Your task to perform on an android device: Empty the shopping cart on ebay.com. Add "macbook pro 13 inch" to the cart on ebay.com Image 0: 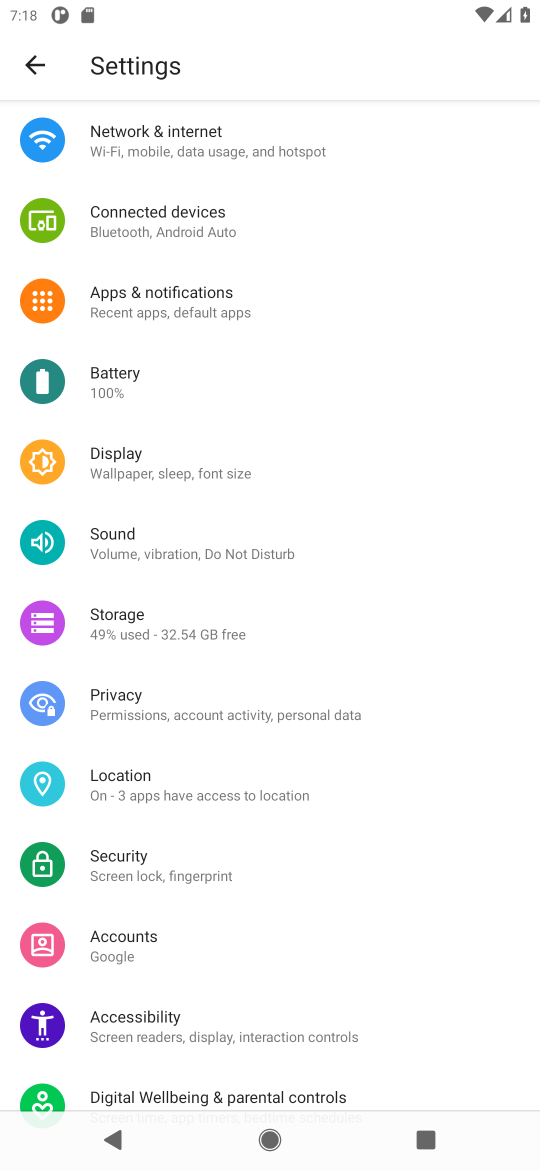
Step 0: press home button
Your task to perform on an android device: Empty the shopping cart on ebay.com. Add "macbook pro 13 inch" to the cart on ebay.com Image 1: 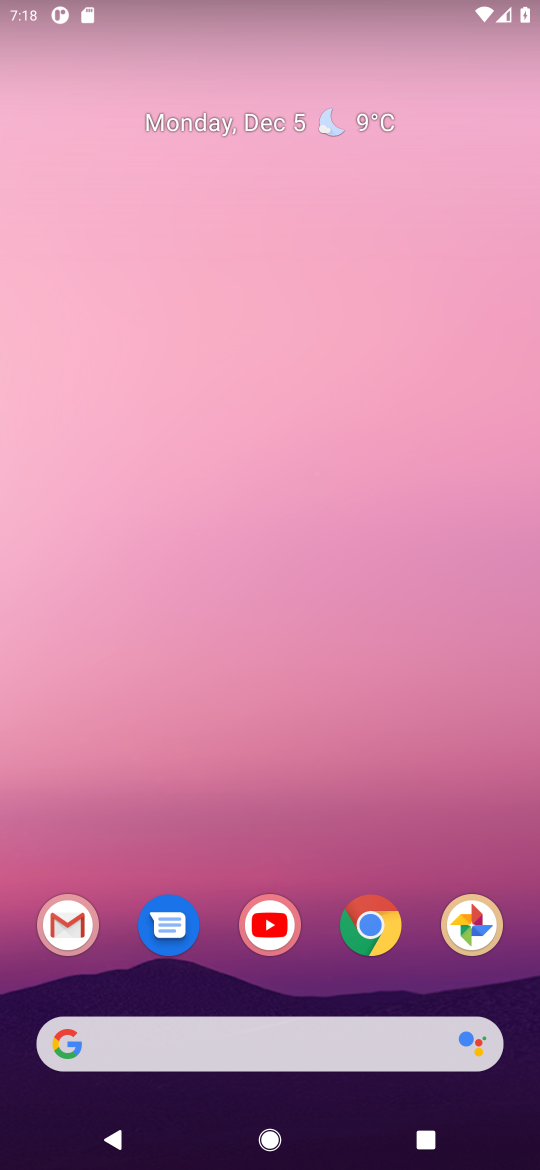
Step 1: click (377, 939)
Your task to perform on an android device: Empty the shopping cart on ebay.com. Add "macbook pro 13 inch" to the cart on ebay.com Image 2: 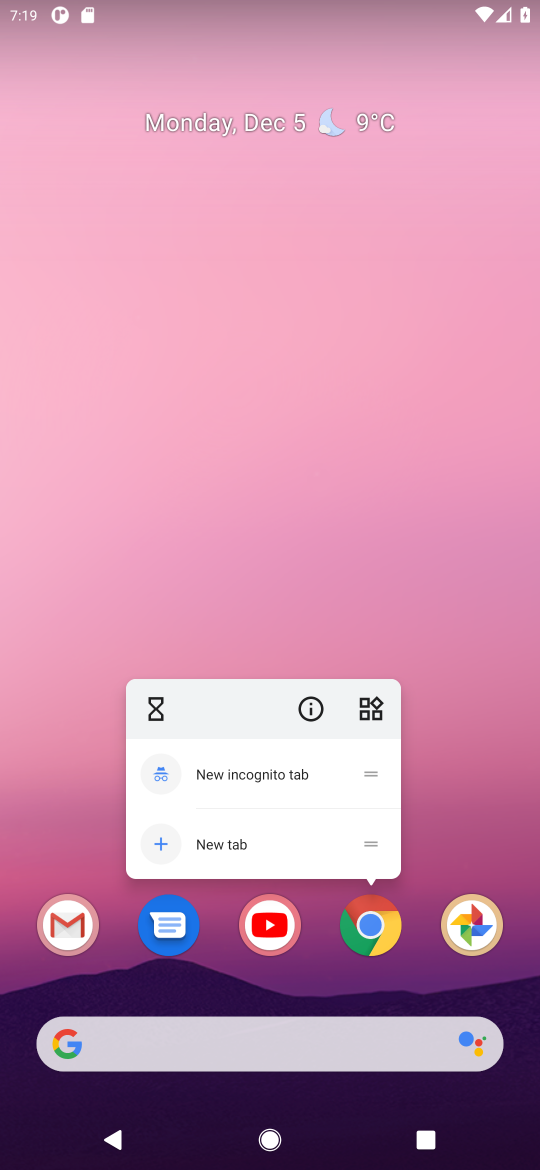
Step 2: click (382, 933)
Your task to perform on an android device: Empty the shopping cart on ebay.com. Add "macbook pro 13 inch" to the cart on ebay.com Image 3: 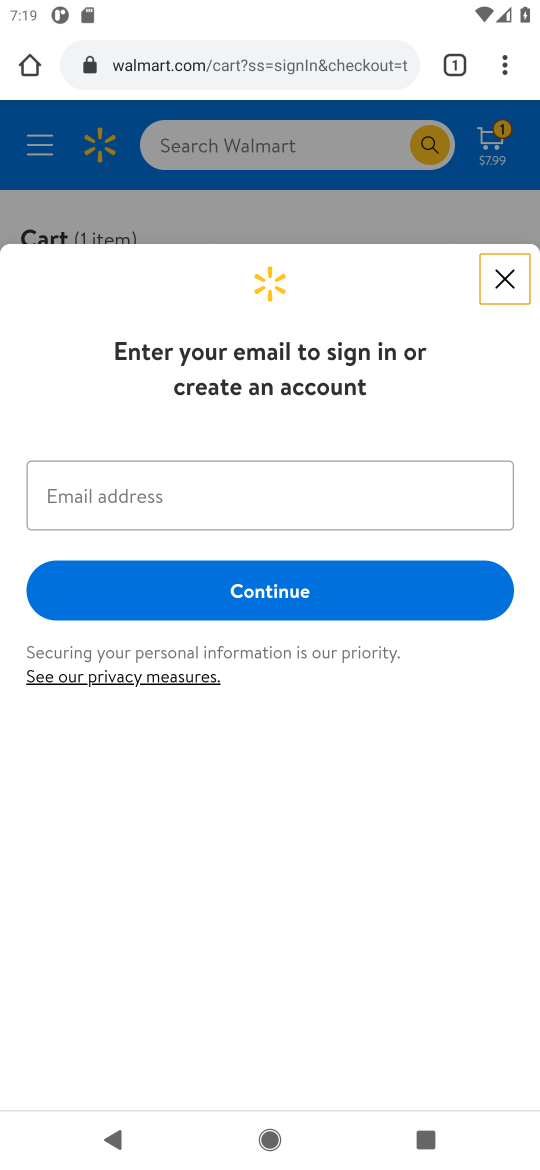
Step 3: click (192, 68)
Your task to perform on an android device: Empty the shopping cart on ebay.com. Add "macbook pro 13 inch" to the cart on ebay.com Image 4: 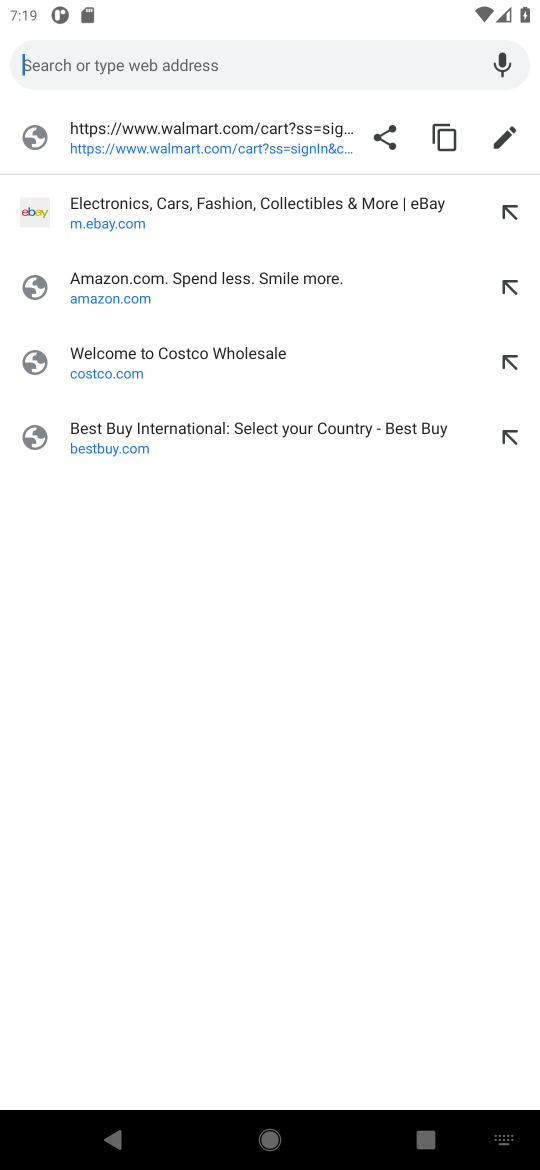
Step 4: click (116, 211)
Your task to perform on an android device: Empty the shopping cart on ebay.com. Add "macbook pro 13 inch" to the cart on ebay.com Image 5: 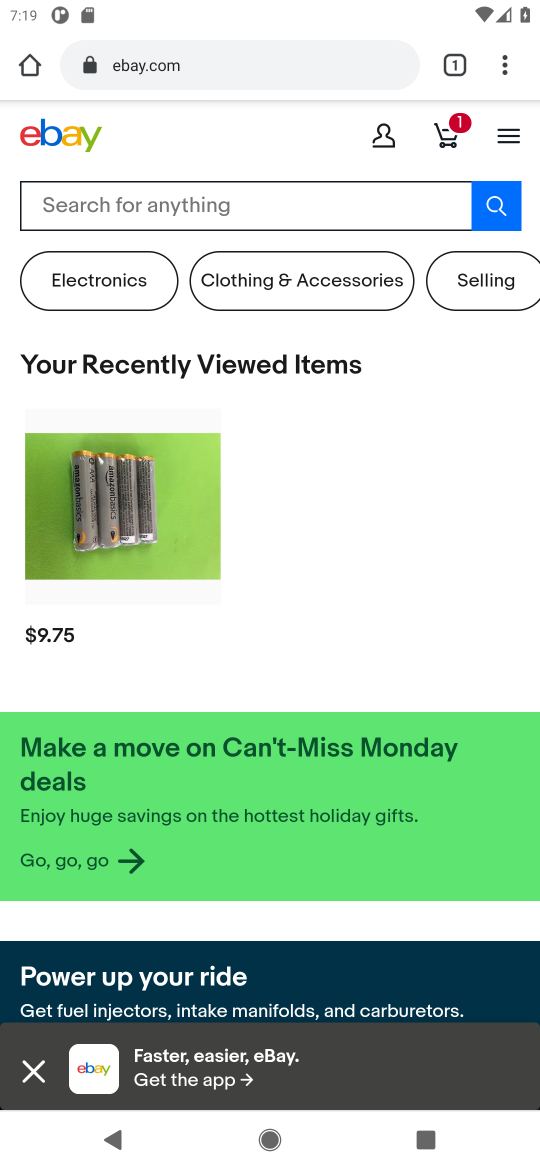
Step 5: click (448, 122)
Your task to perform on an android device: Empty the shopping cart on ebay.com. Add "macbook pro 13 inch" to the cart on ebay.com Image 6: 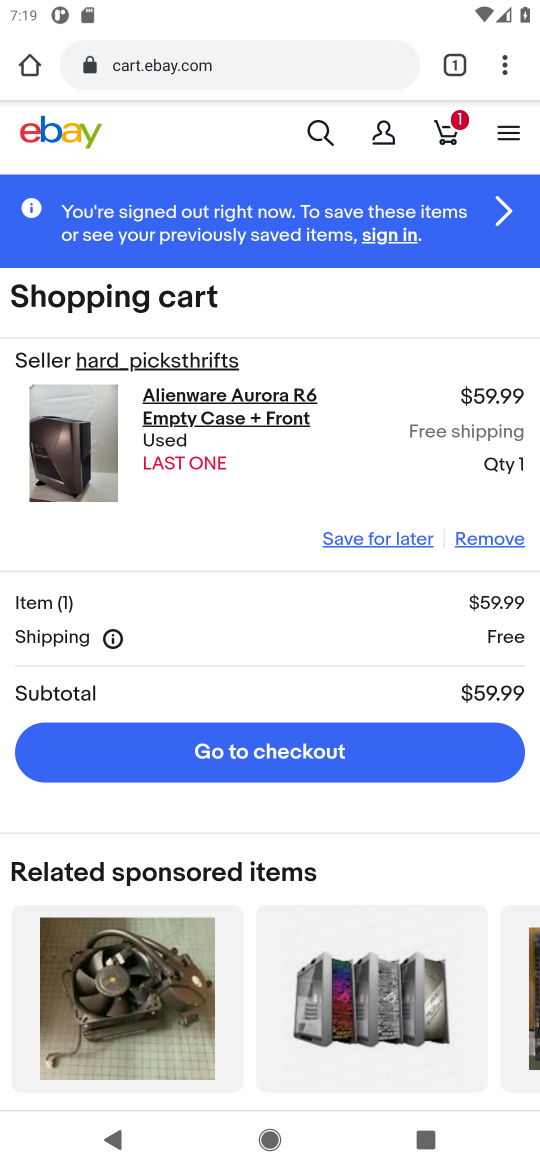
Step 6: click (504, 540)
Your task to perform on an android device: Empty the shopping cart on ebay.com. Add "macbook pro 13 inch" to the cart on ebay.com Image 7: 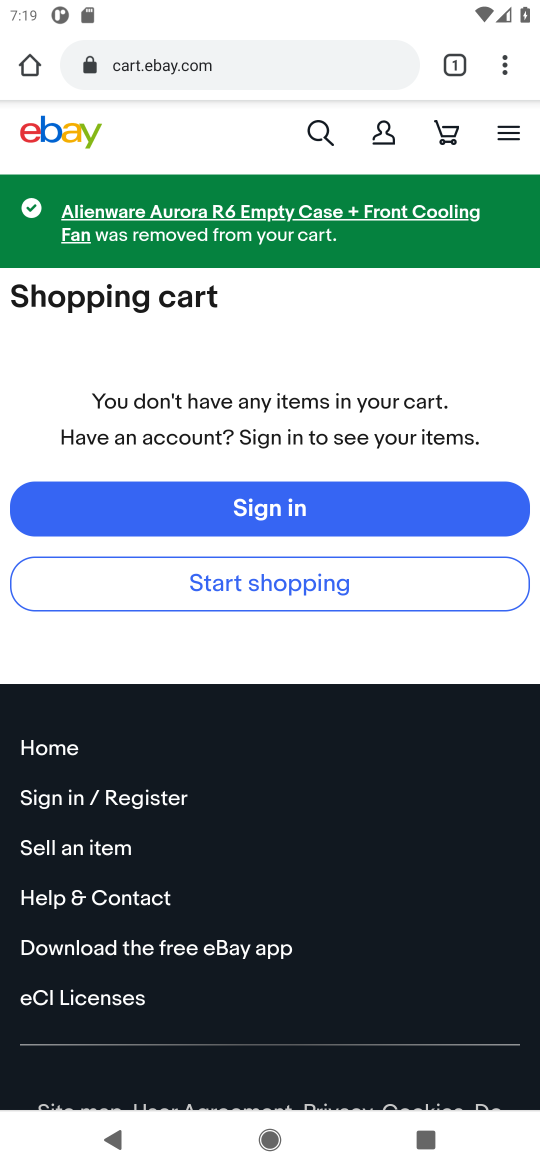
Step 7: click (314, 133)
Your task to perform on an android device: Empty the shopping cart on ebay.com. Add "macbook pro 13 inch" to the cart on ebay.com Image 8: 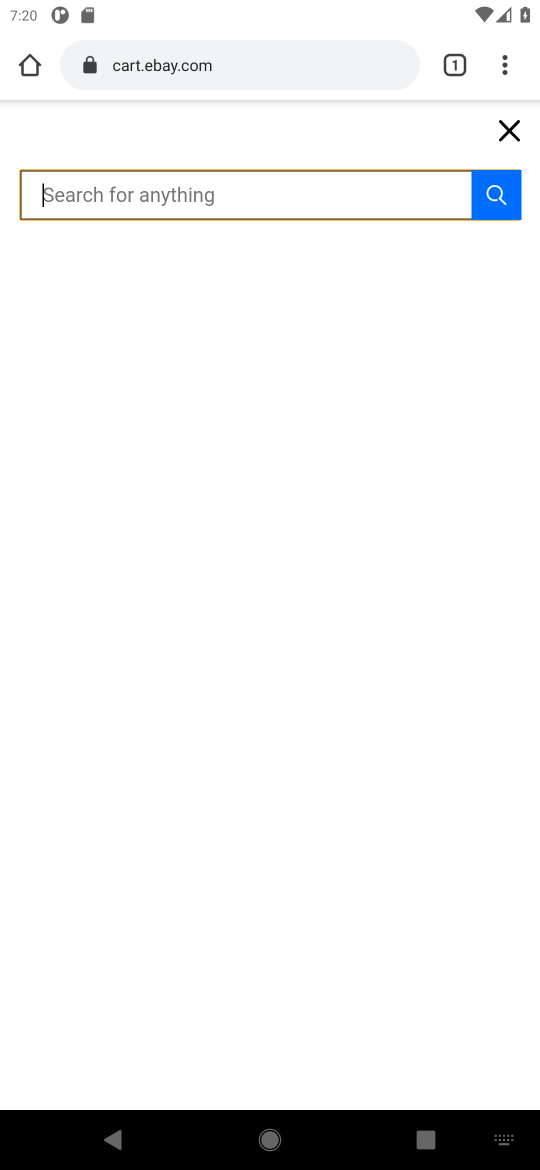
Step 8: type "macbook pro 13 inch"
Your task to perform on an android device: Empty the shopping cart on ebay.com. Add "macbook pro 13 inch" to the cart on ebay.com Image 9: 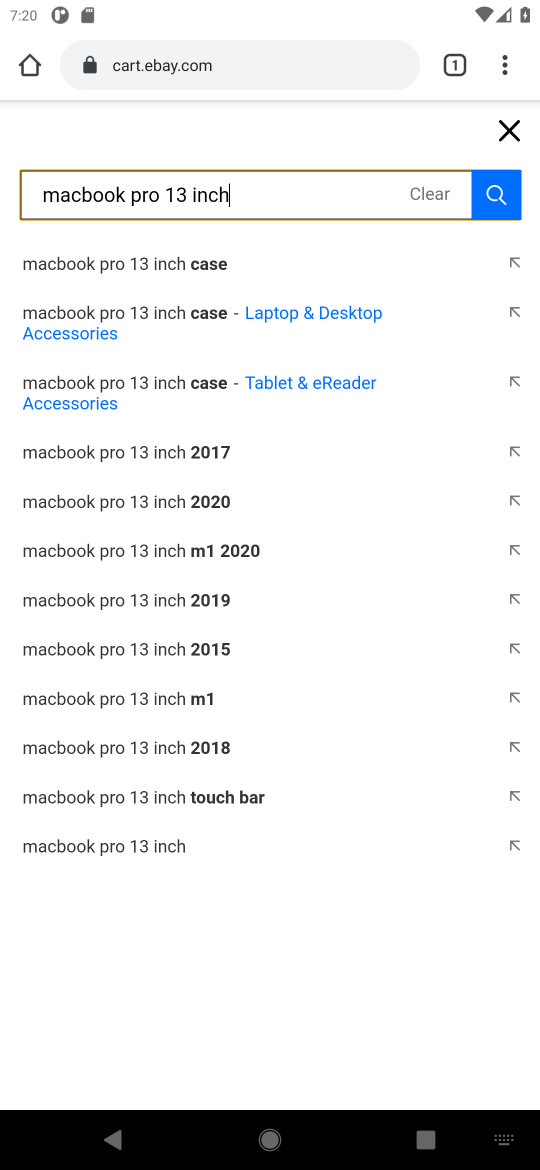
Step 9: click (114, 848)
Your task to perform on an android device: Empty the shopping cart on ebay.com. Add "macbook pro 13 inch" to the cart on ebay.com Image 10: 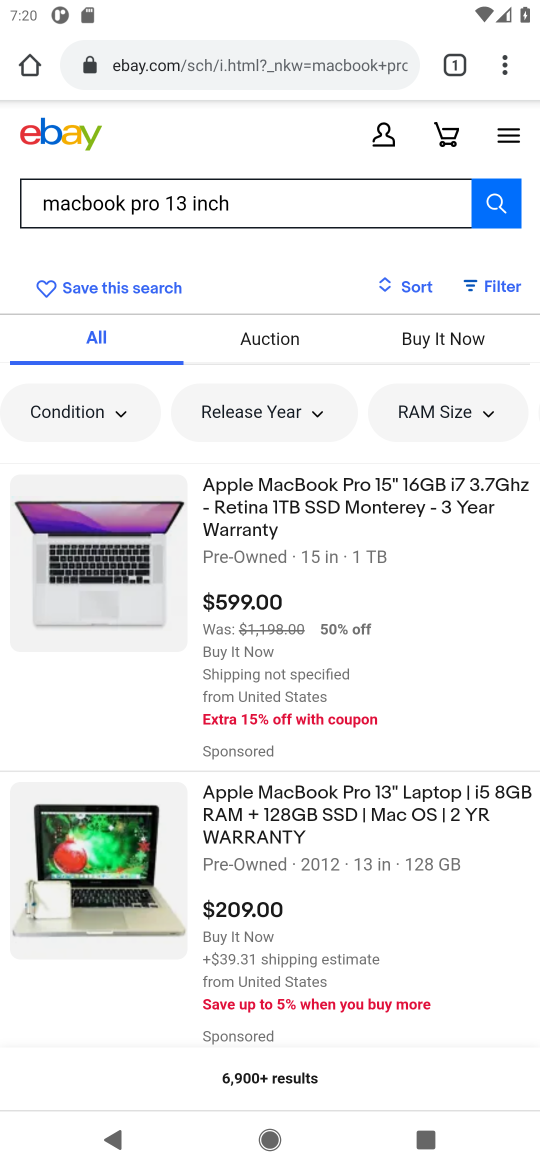
Step 10: click (271, 803)
Your task to perform on an android device: Empty the shopping cart on ebay.com. Add "macbook pro 13 inch" to the cart on ebay.com Image 11: 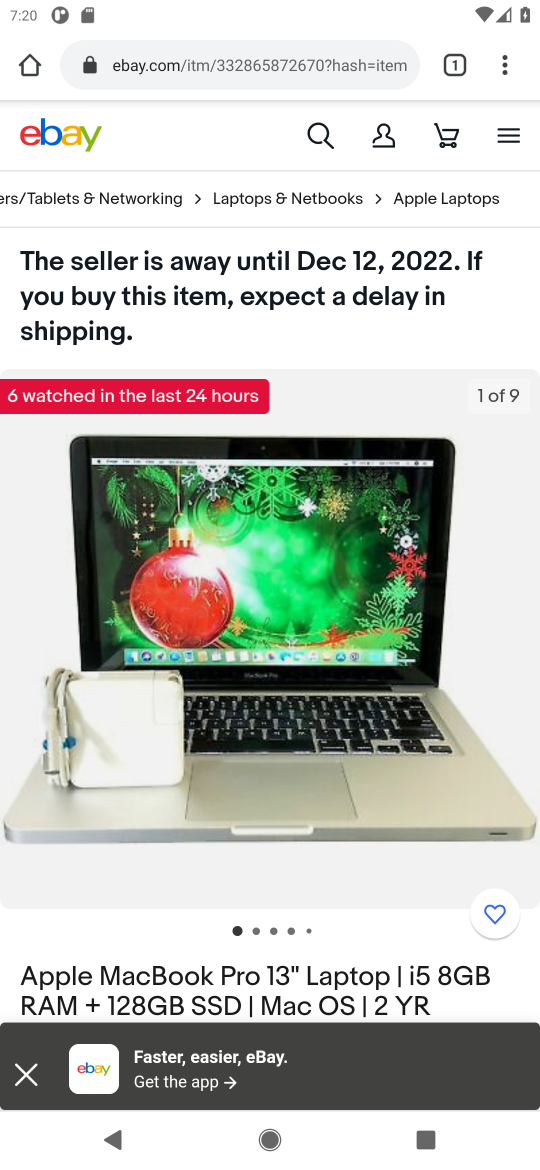
Step 11: drag from (294, 853) to (288, 433)
Your task to perform on an android device: Empty the shopping cart on ebay.com. Add "macbook pro 13 inch" to the cart on ebay.com Image 12: 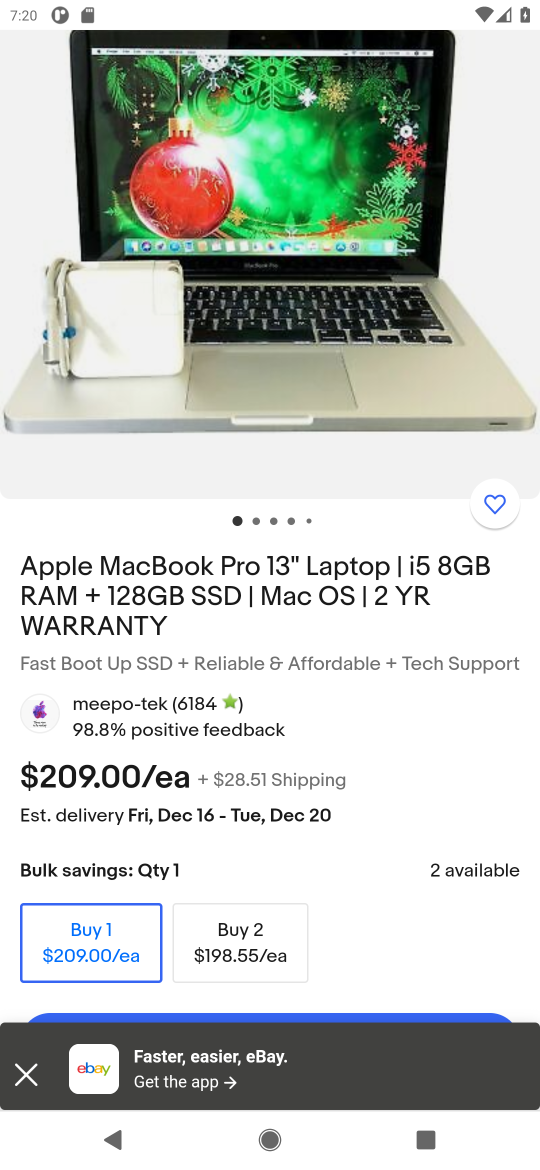
Step 12: drag from (296, 817) to (285, 361)
Your task to perform on an android device: Empty the shopping cart on ebay.com. Add "macbook pro 13 inch" to the cart on ebay.com Image 13: 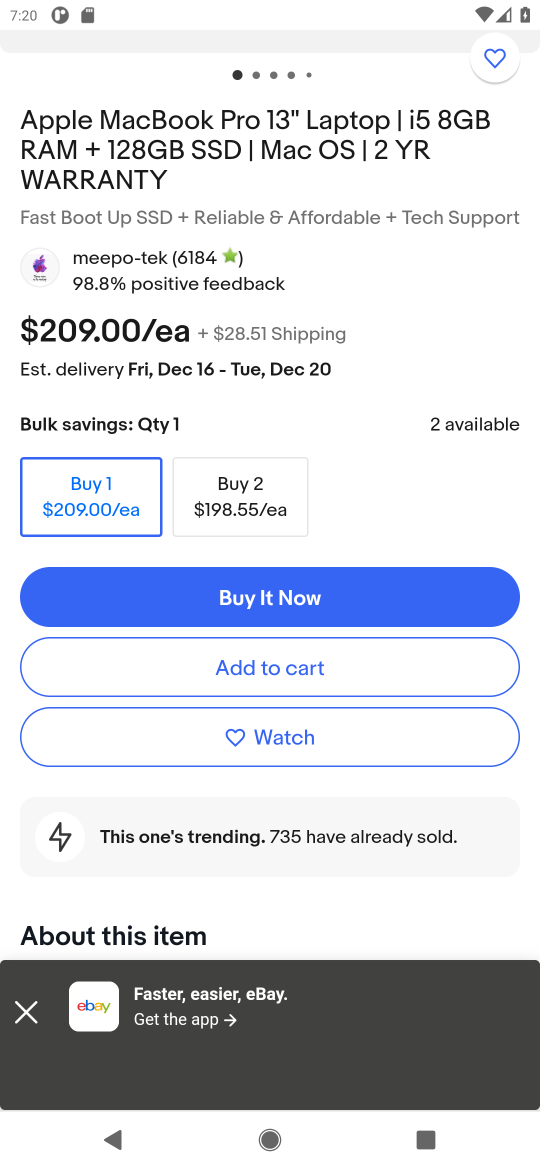
Step 13: click (256, 666)
Your task to perform on an android device: Empty the shopping cart on ebay.com. Add "macbook pro 13 inch" to the cart on ebay.com Image 14: 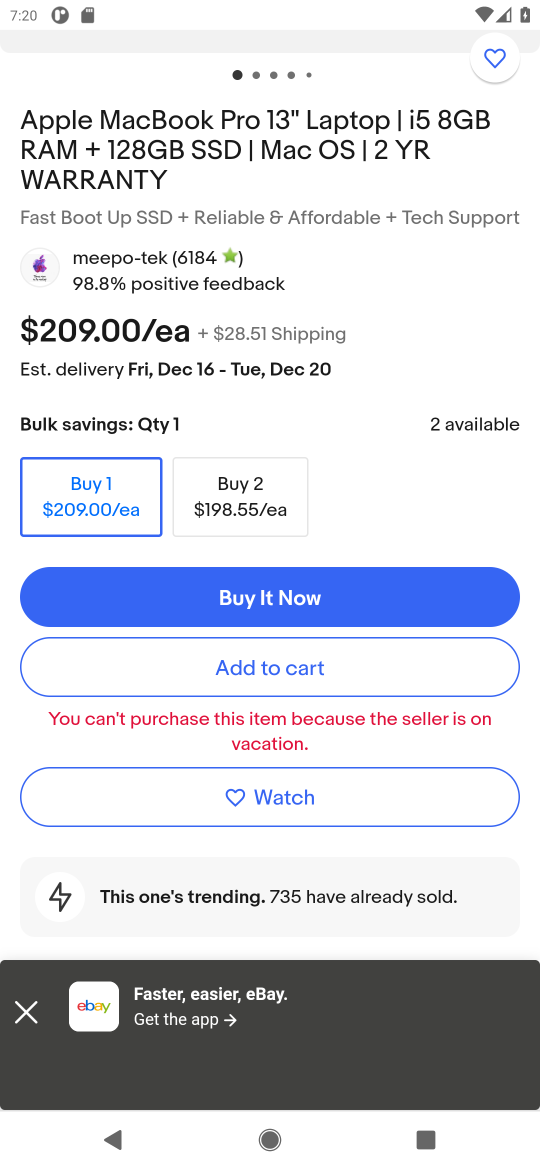
Step 14: press back button
Your task to perform on an android device: Empty the shopping cart on ebay.com. Add "macbook pro 13 inch" to the cart on ebay.com Image 15: 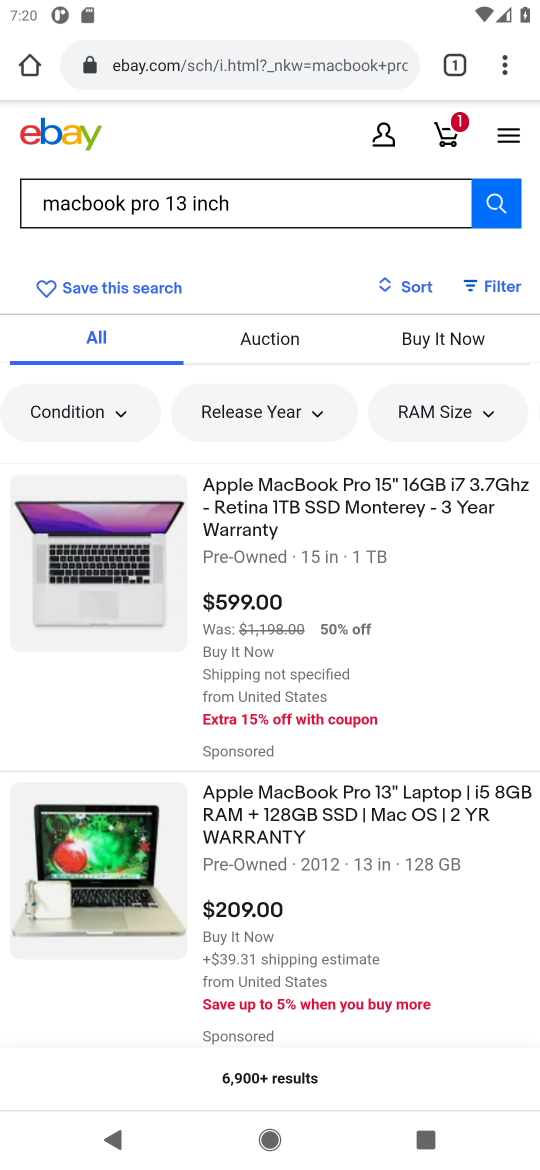
Step 15: drag from (363, 739) to (348, 316)
Your task to perform on an android device: Empty the shopping cart on ebay.com. Add "macbook pro 13 inch" to the cart on ebay.com Image 16: 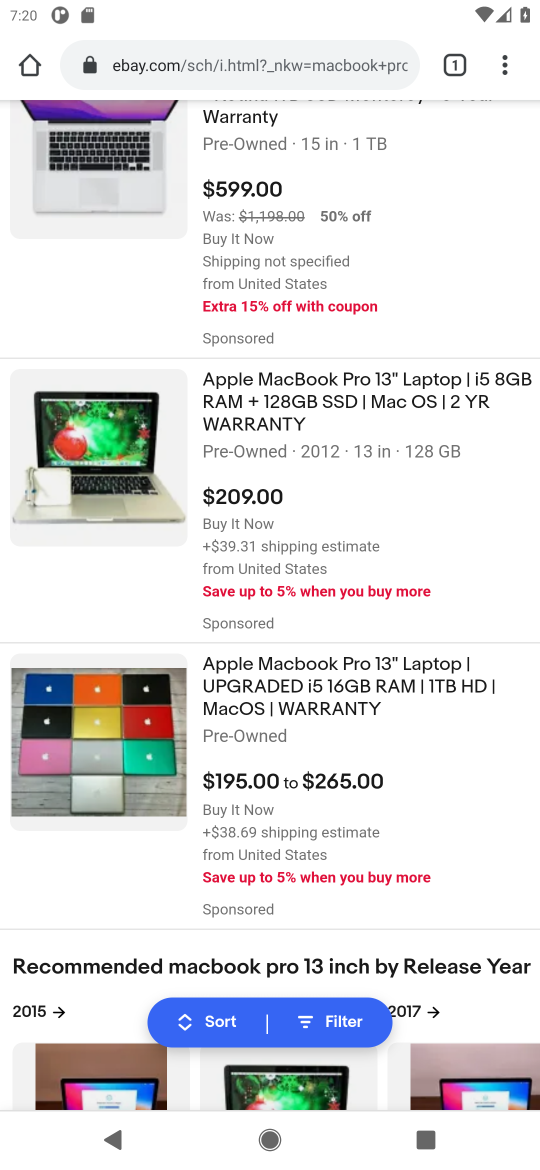
Step 16: drag from (248, 723) to (267, 409)
Your task to perform on an android device: Empty the shopping cart on ebay.com. Add "macbook pro 13 inch" to the cart on ebay.com Image 17: 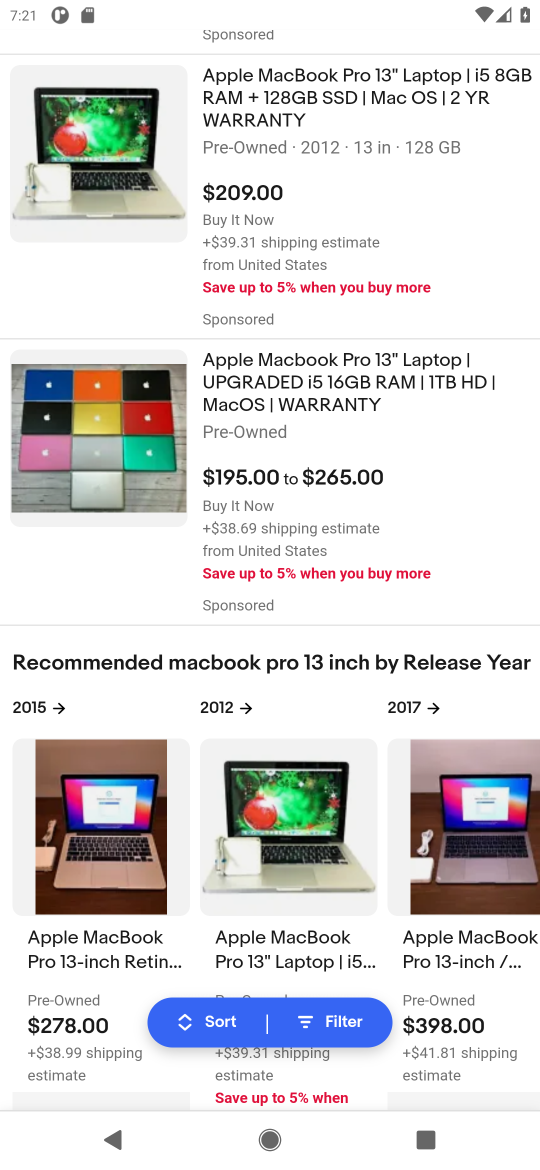
Step 17: click (267, 408)
Your task to perform on an android device: Empty the shopping cart on ebay.com. Add "macbook pro 13 inch" to the cart on ebay.com Image 18: 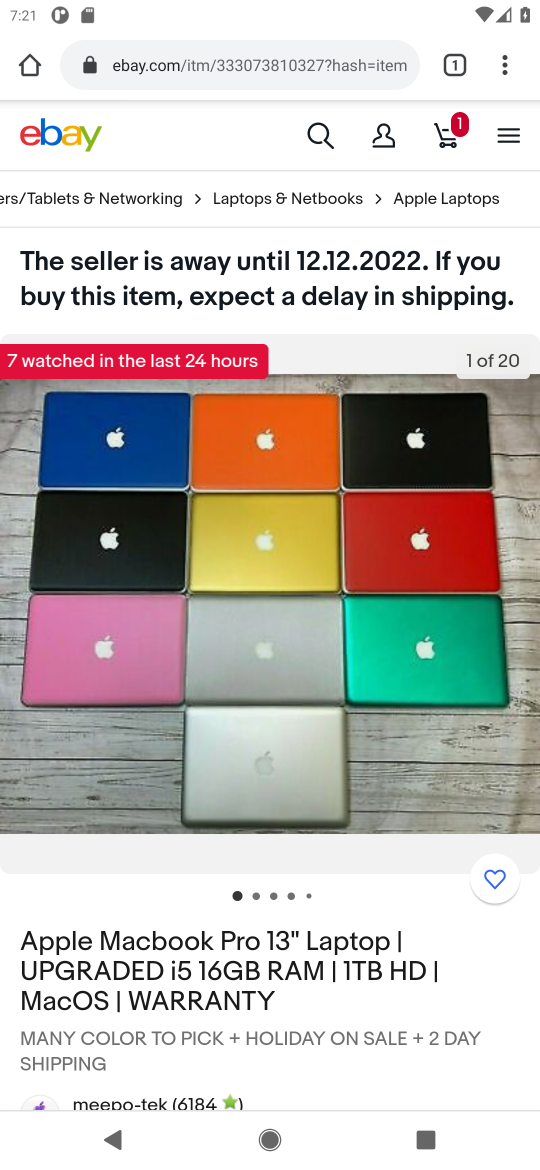
Step 18: drag from (418, 868) to (369, 600)
Your task to perform on an android device: Empty the shopping cart on ebay.com. Add "macbook pro 13 inch" to the cart on ebay.com Image 19: 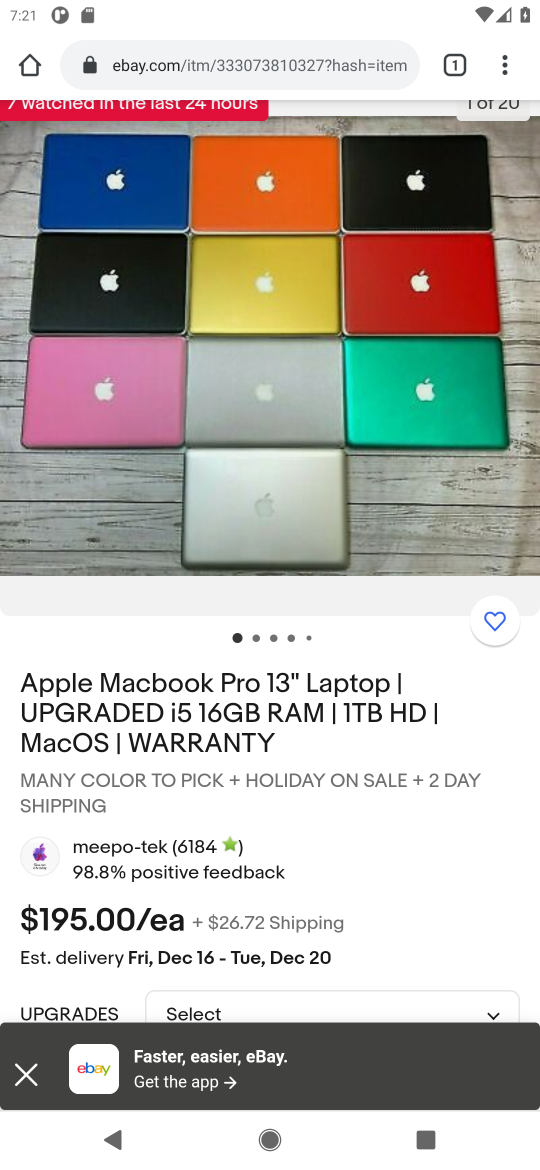
Step 19: drag from (351, 798) to (321, 421)
Your task to perform on an android device: Empty the shopping cart on ebay.com. Add "macbook pro 13 inch" to the cart on ebay.com Image 20: 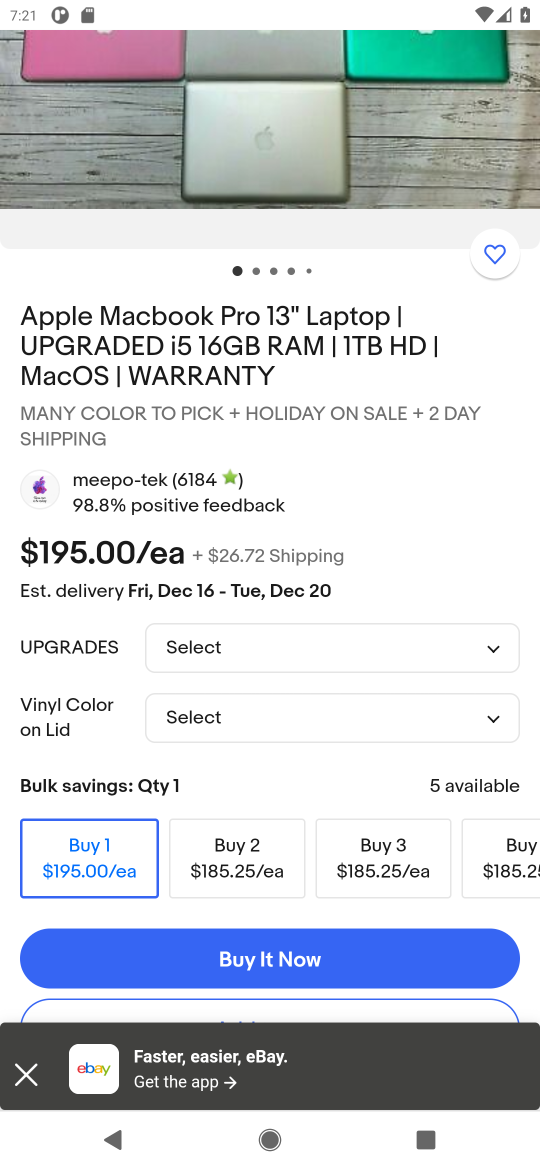
Step 20: drag from (330, 654) to (326, 245)
Your task to perform on an android device: Empty the shopping cart on ebay.com. Add "macbook pro 13 inch" to the cart on ebay.com Image 21: 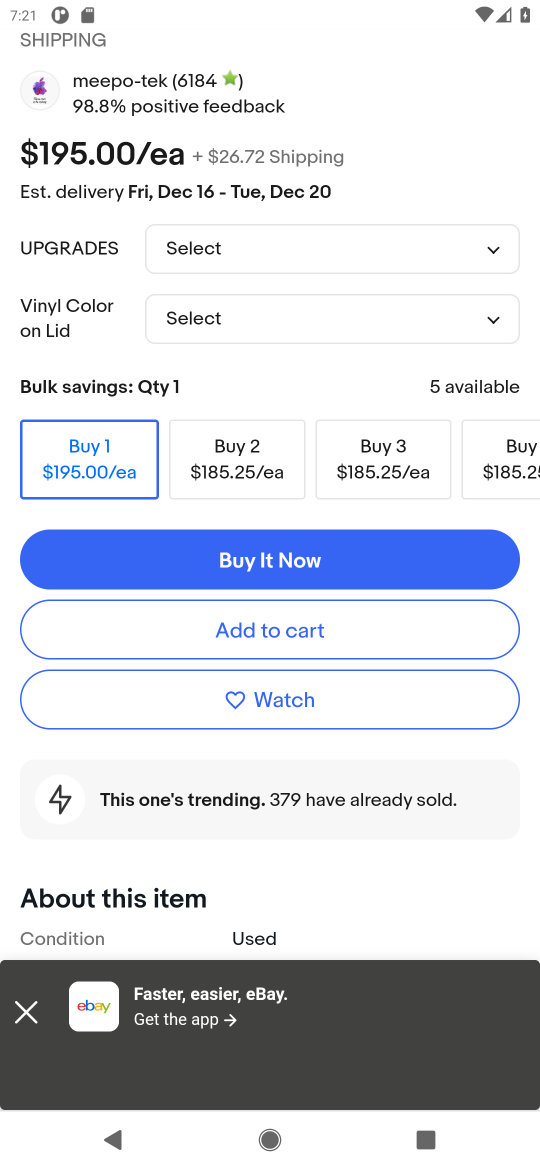
Step 21: click (250, 632)
Your task to perform on an android device: Empty the shopping cart on ebay.com. Add "macbook pro 13 inch" to the cart on ebay.com Image 22: 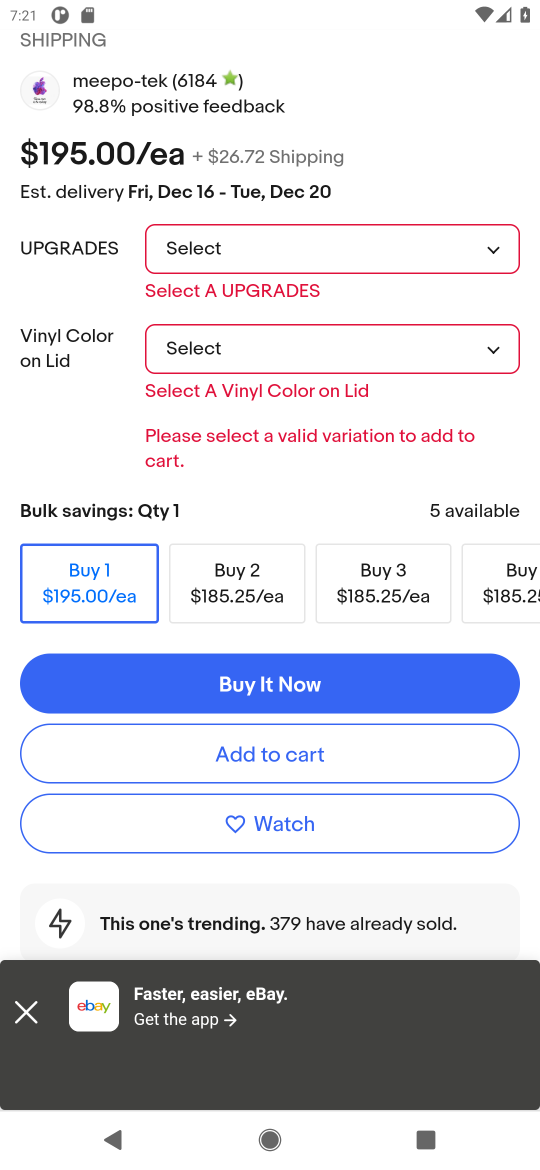
Step 22: click (485, 248)
Your task to perform on an android device: Empty the shopping cart on ebay.com. Add "macbook pro 13 inch" to the cart on ebay.com Image 23: 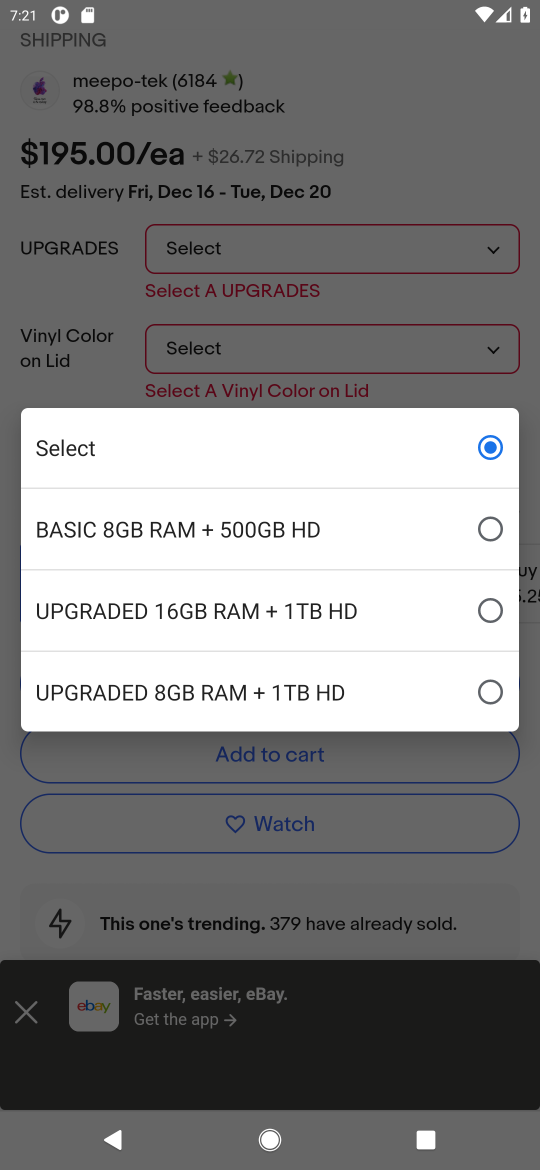
Step 23: click (162, 535)
Your task to perform on an android device: Empty the shopping cart on ebay.com. Add "macbook pro 13 inch" to the cart on ebay.com Image 24: 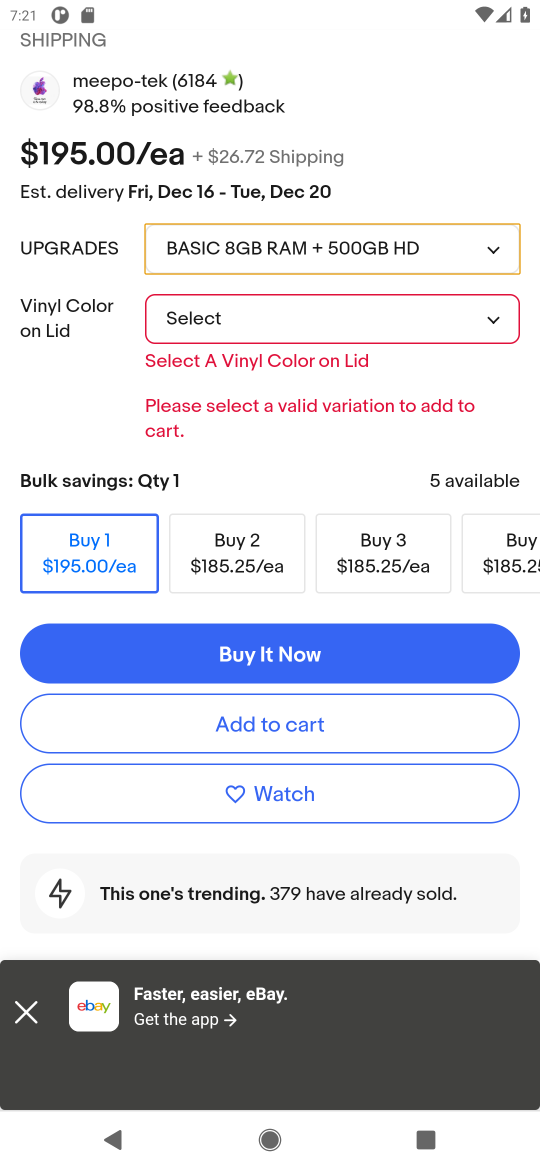
Step 24: click (501, 314)
Your task to perform on an android device: Empty the shopping cart on ebay.com. Add "macbook pro 13 inch" to the cart on ebay.com Image 25: 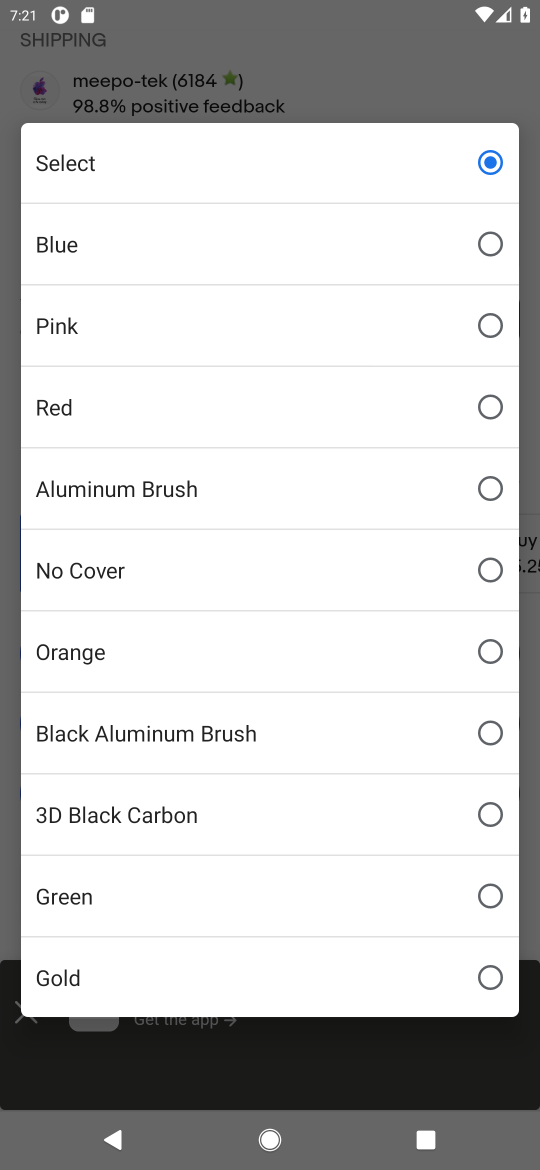
Step 25: click (67, 317)
Your task to perform on an android device: Empty the shopping cart on ebay.com. Add "macbook pro 13 inch" to the cart on ebay.com Image 26: 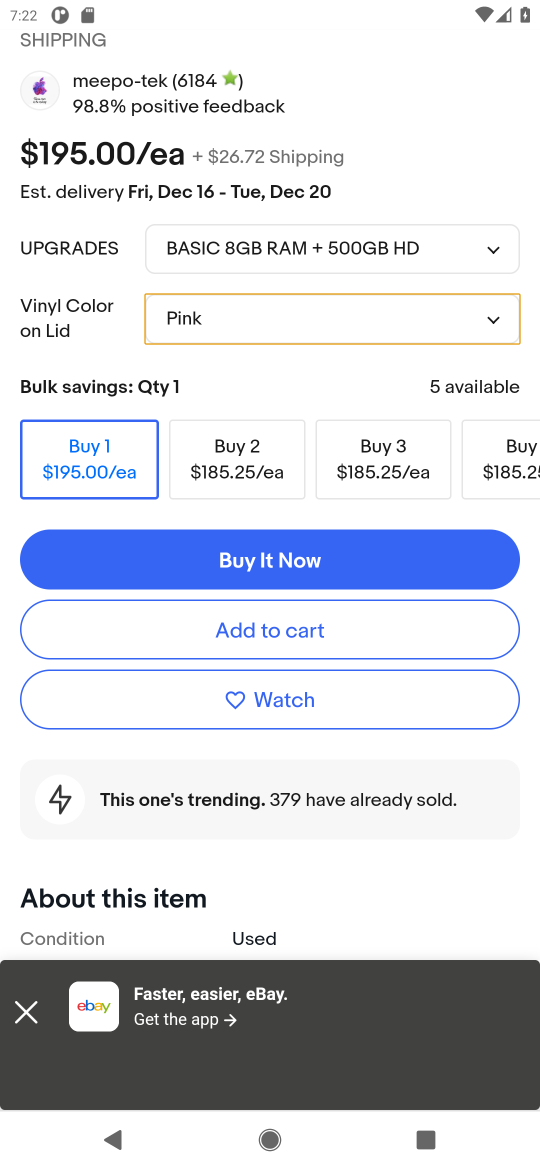
Step 26: click (175, 642)
Your task to perform on an android device: Empty the shopping cart on ebay.com. Add "macbook pro 13 inch" to the cart on ebay.com Image 27: 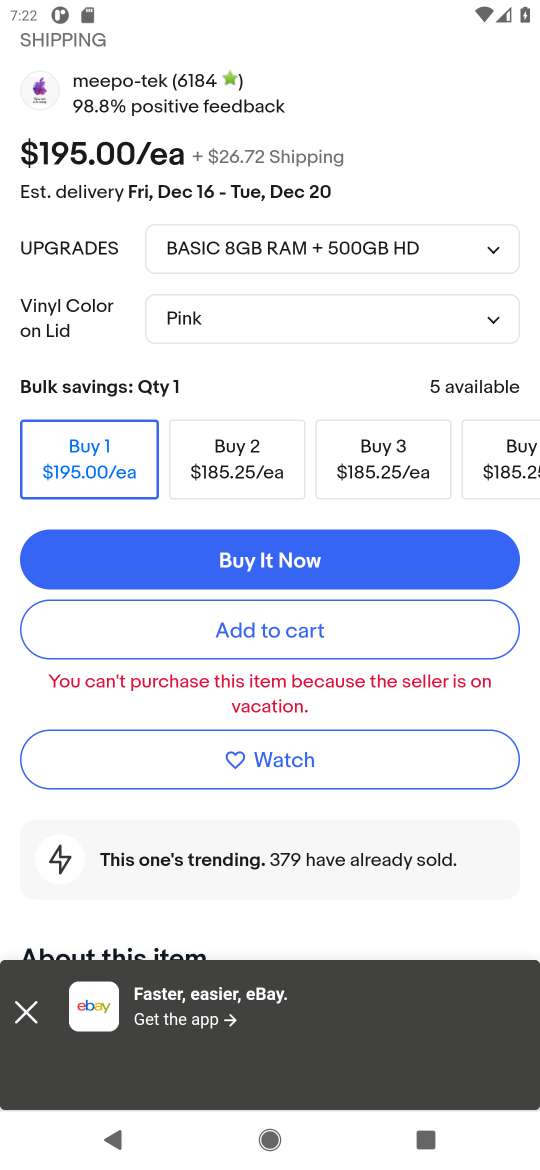
Step 27: task complete